Your task to perform on an android device: see sites visited before in the chrome app Image 0: 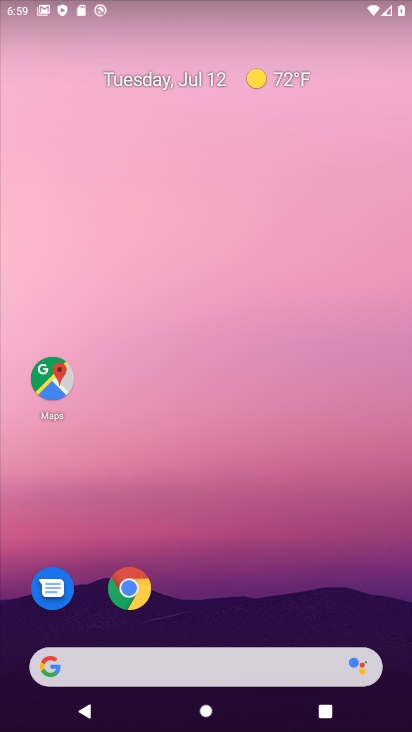
Step 0: drag from (202, 606) to (290, 113)
Your task to perform on an android device: see sites visited before in the chrome app Image 1: 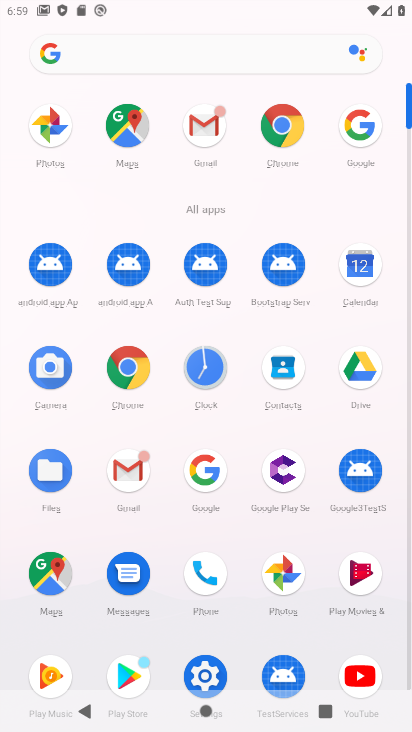
Step 1: click (290, 137)
Your task to perform on an android device: see sites visited before in the chrome app Image 2: 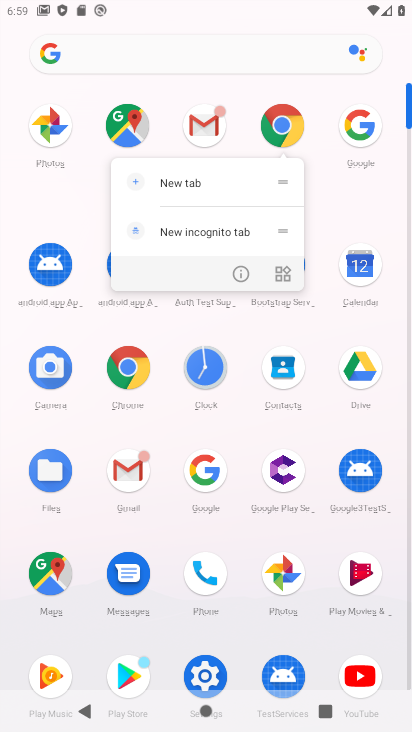
Step 2: click (289, 128)
Your task to perform on an android device: see sites visited before in the chrome app Image 3: 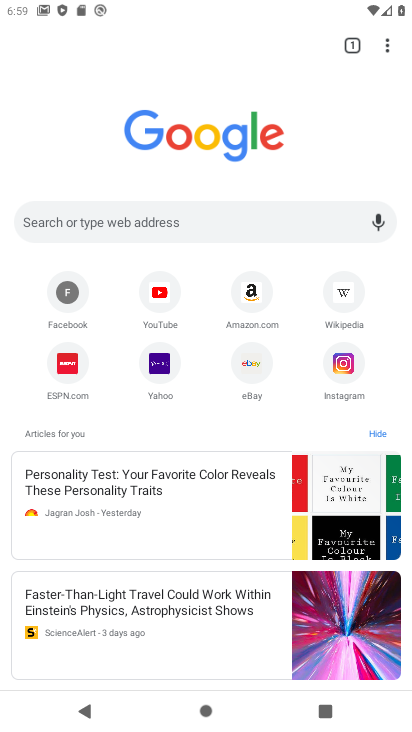
Step 3: drag from (395, 44) to (248, 223)
Your task to perform on an android device: see sites visited before in the chrome app Image 4: 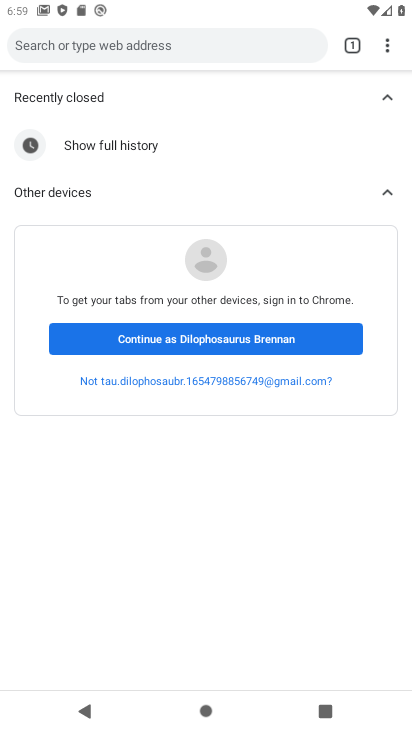
Step 4: click (232, 336)
Your task to perform on an android device: see sites visited before in the chrome app Image 5: 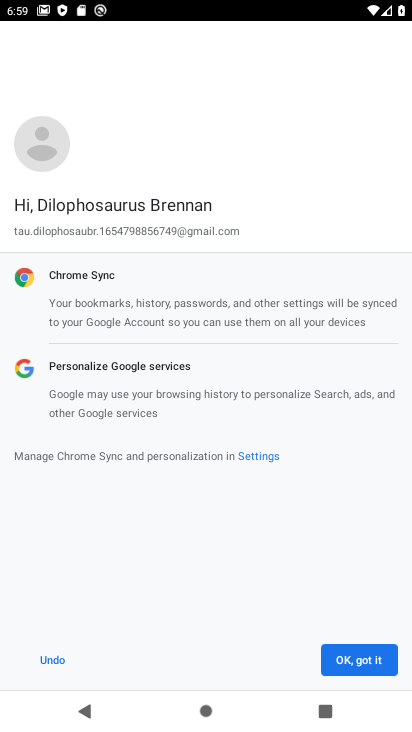
Step 5: click (351, 654)
Your task to perform on an android device: see sites visited before in the chrome app Image 6: 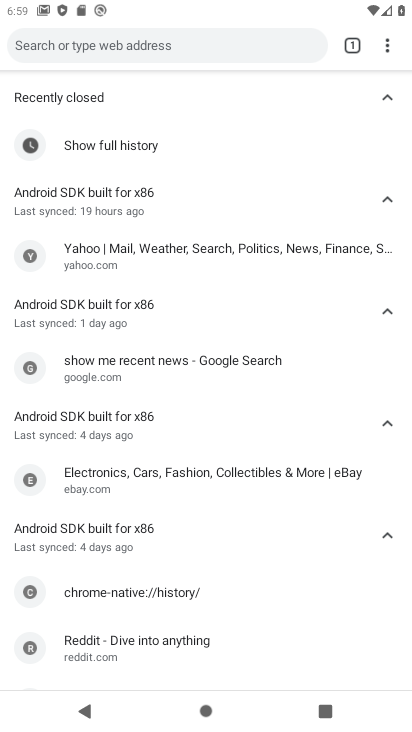
Step 6: task complete